Your task to perform on an android device: Open settings Image 0: 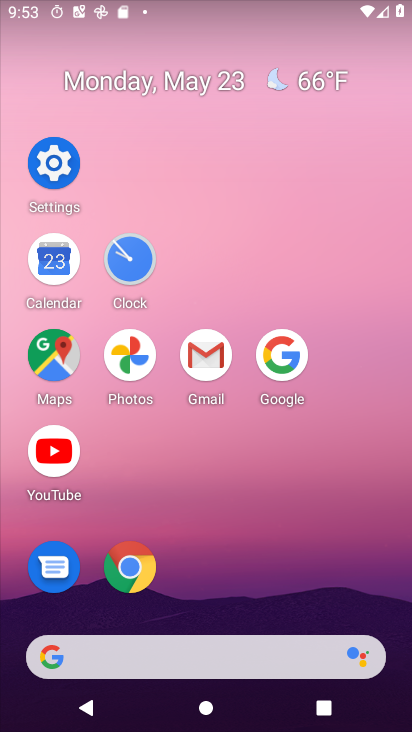
Step 0: click (43, 164)
Your task to perform on an android device: Open settings Image 1: 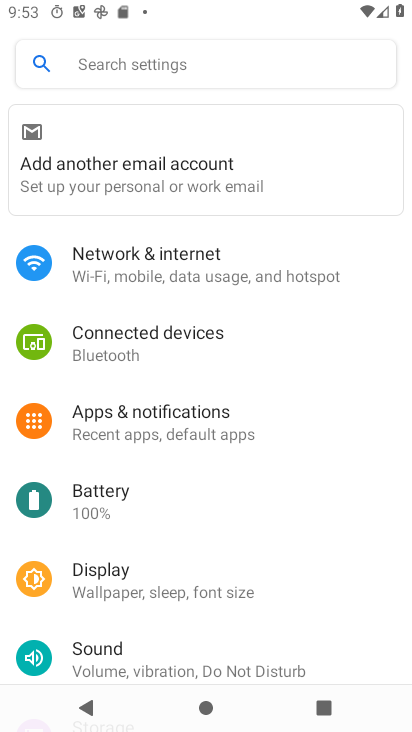
Step 1: task complete